Your task to perform on an android device: delete a single message in the gmail app Image 0: 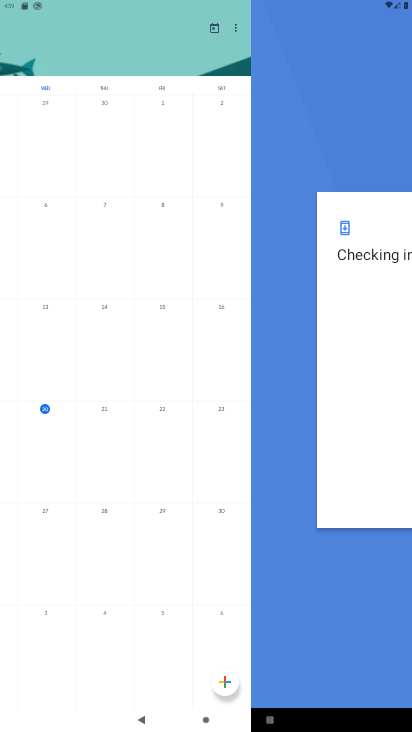
Step 0: press home button
Your task to perform on an android device: delete a single message in the gmail app Image 1: 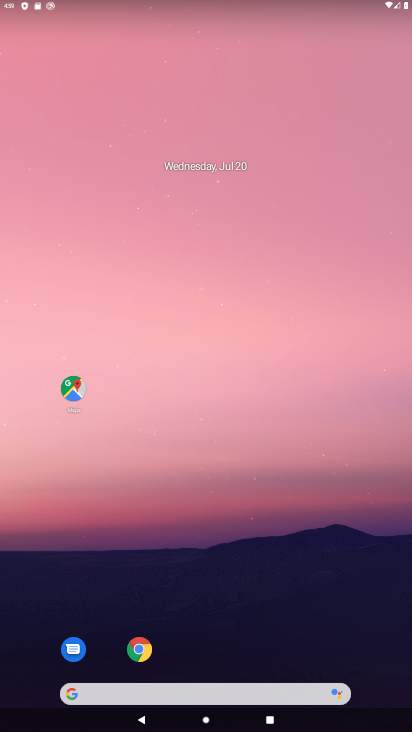
Step 1: drag from (316, 560) to (398, 99)
Your task to perform on an android device: delete a single message in the gmail app Image 2: 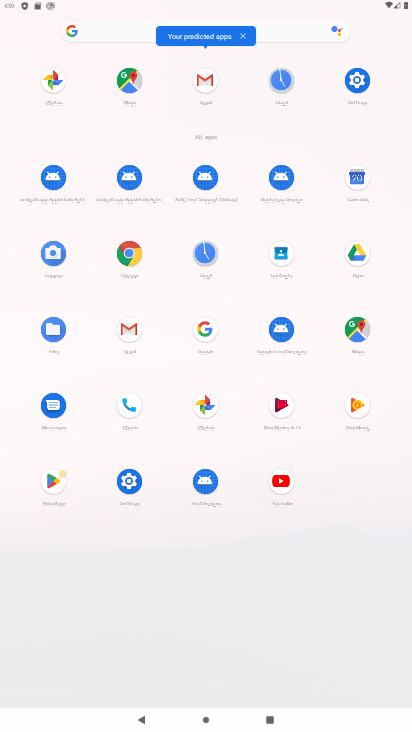
Step 2: click (201, 79)
Your task to perform on an android device: delete a single message in the gmail app Image 3: 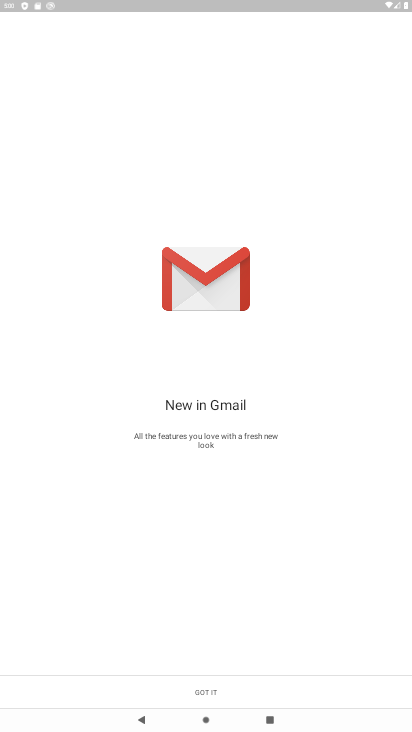
Step 3: click (212, 688)
Your task to perform on an android device: delete a single message in the gmail app Image 4: 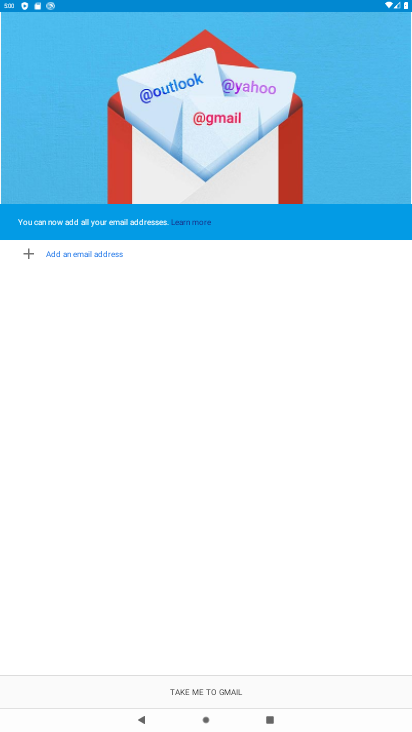
Step 4: click (217, 682)
Your task to perform on an android device: delete a single message in the gmail app Image 5: 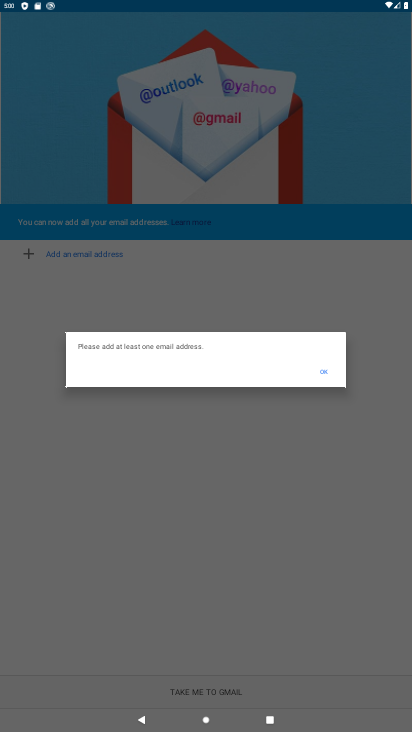
Step 5: task complete